Your task to perform on an android device: open app "Reddit" (install if not already installed) Image 0: 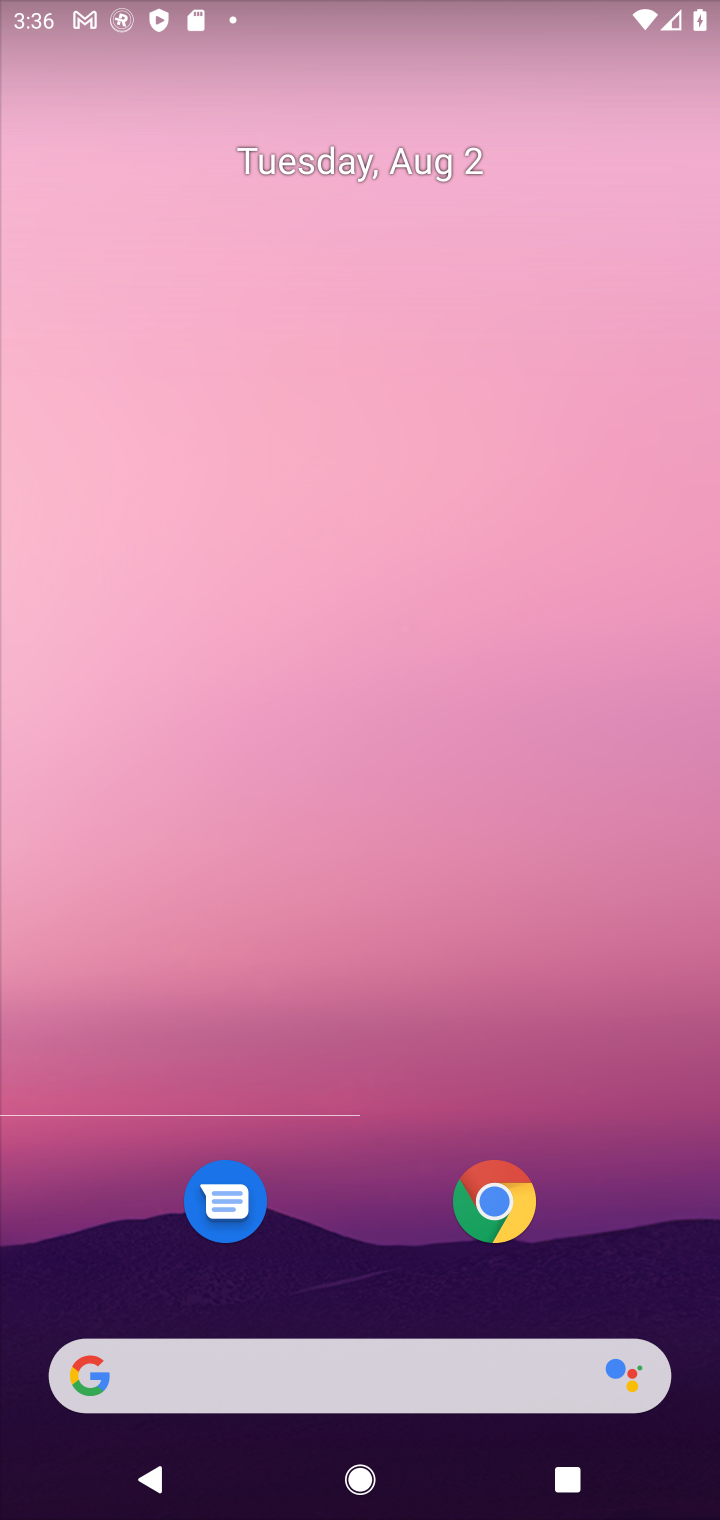
Step 0: press home button
Your task to perform on an android device: open app "Reddit" (install if not already installed) Image 1: 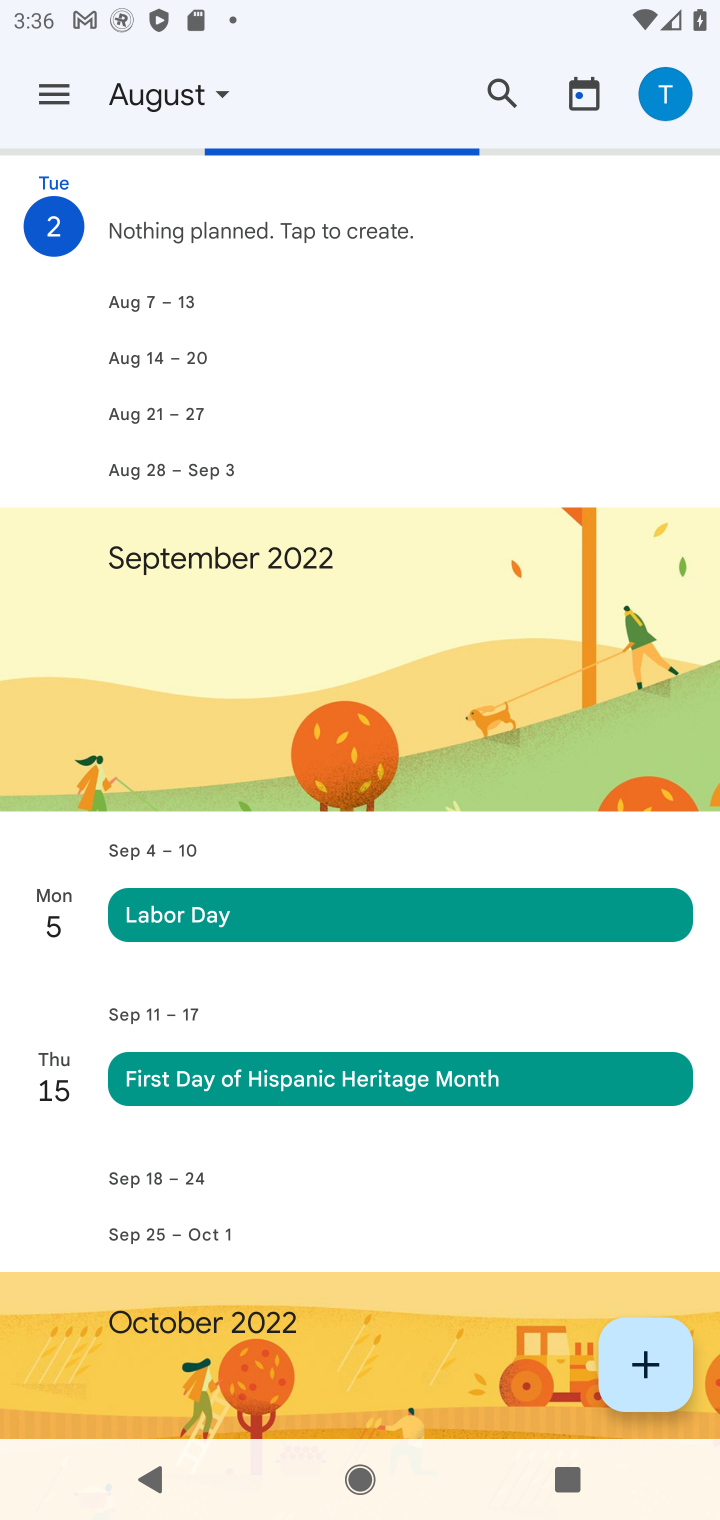
Step 1: click (332, 325)
Your task to perform on an android device: open app "Reddit" (install if not already installed) Image 2: 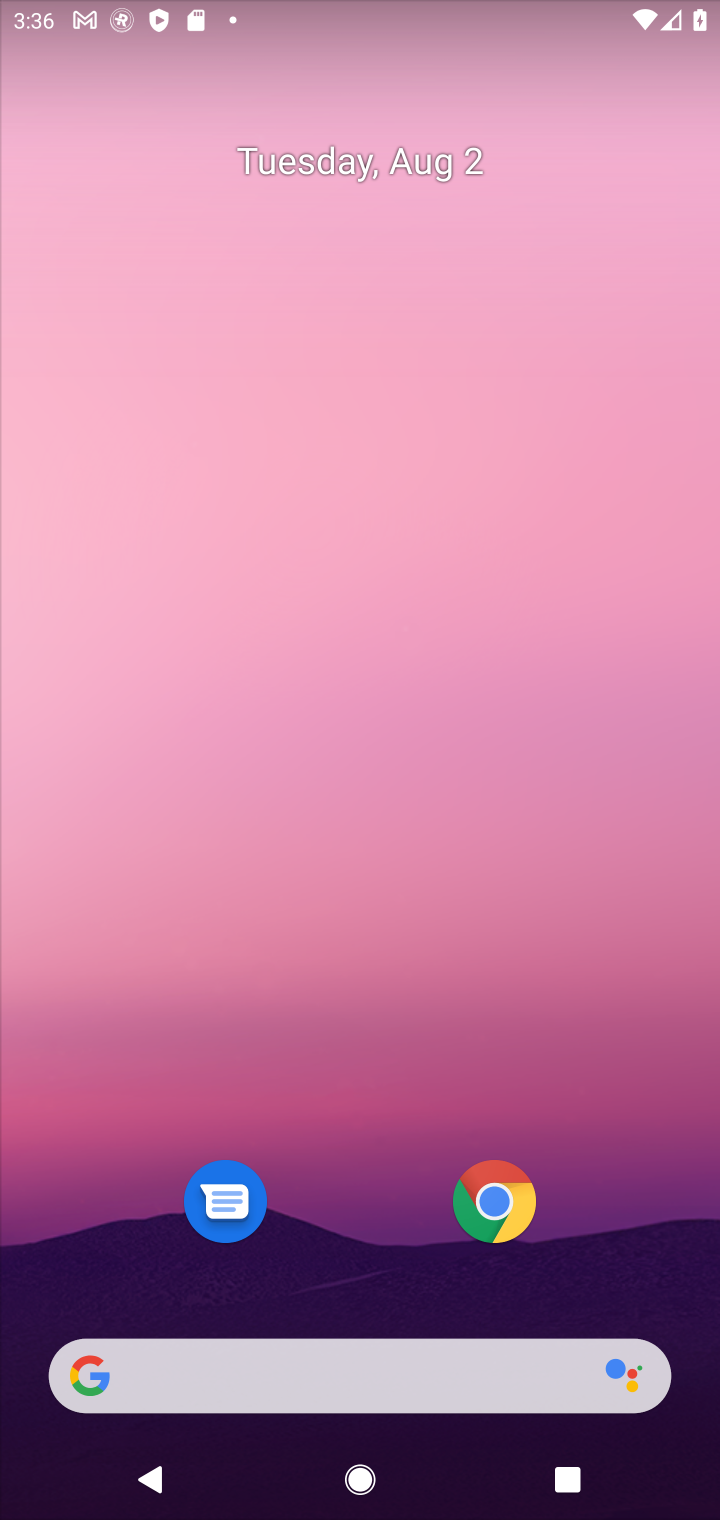
Step 2: drag from (372, 1290) to (387, 150)
Your task to perform on an android device: open app "Reddit" (install if not already installed) Image 3: 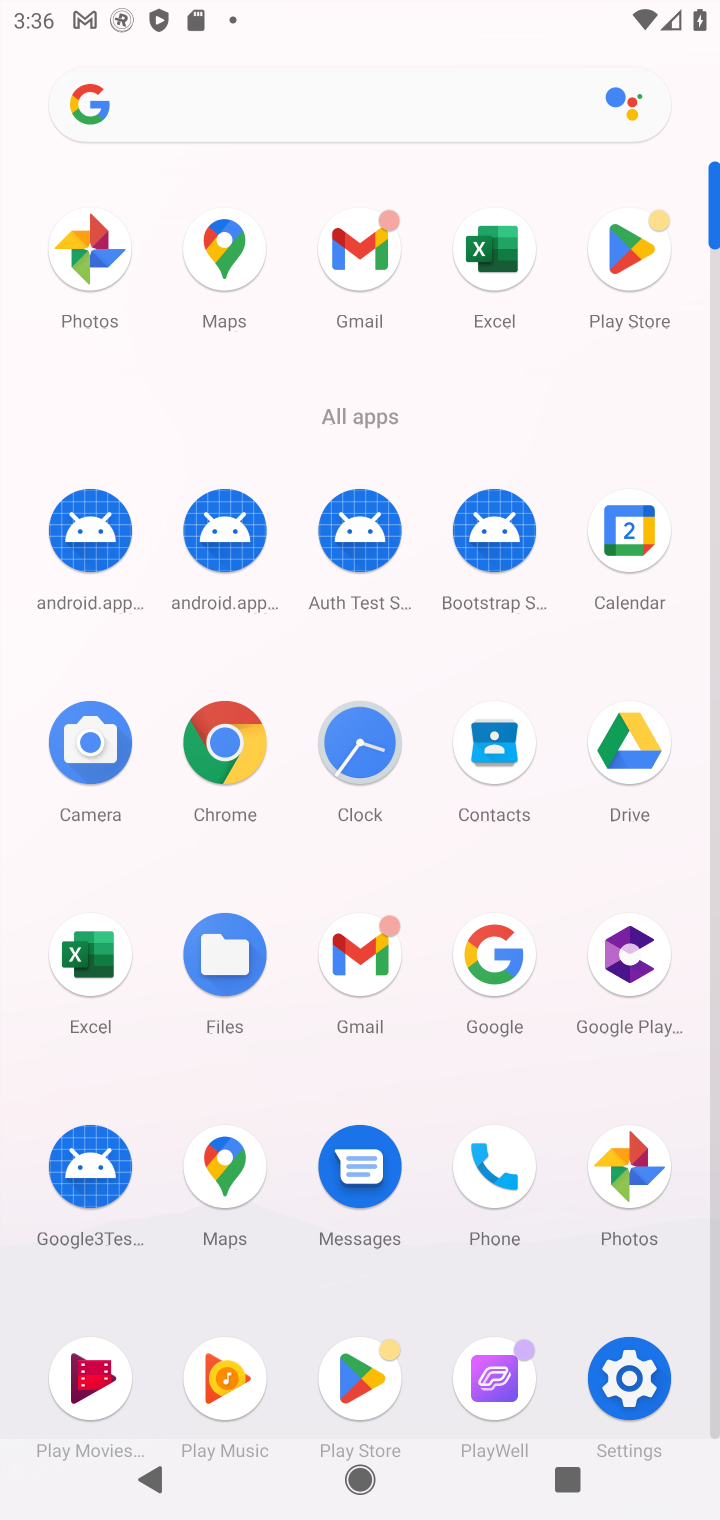
Step 3: click (634, 239)
Your task to perform on an android device: open app "Reddit" (install if not already installed) Image 4: 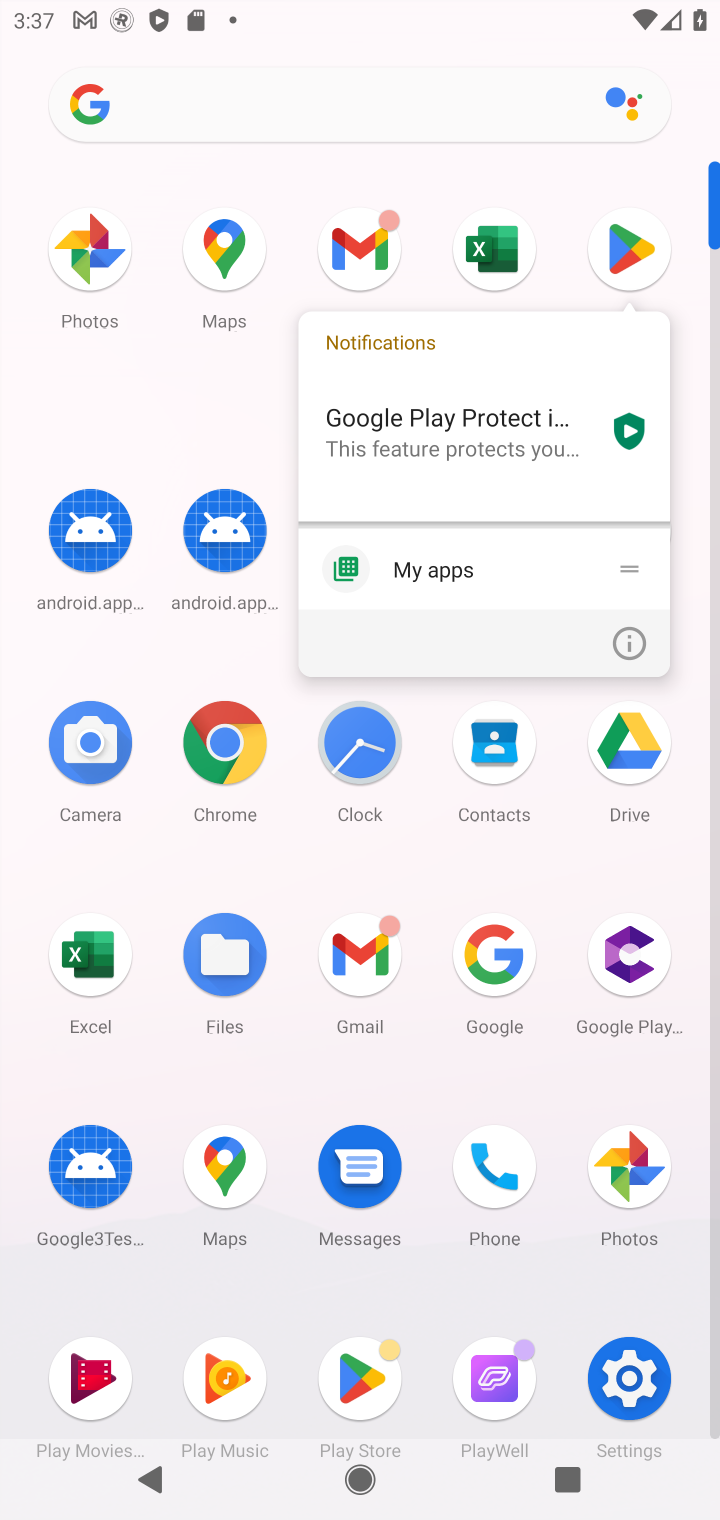
Step 4: click (629, 237)
Your task to perform on an android device: open app "Reddit" (install if not already installed) Image 5: 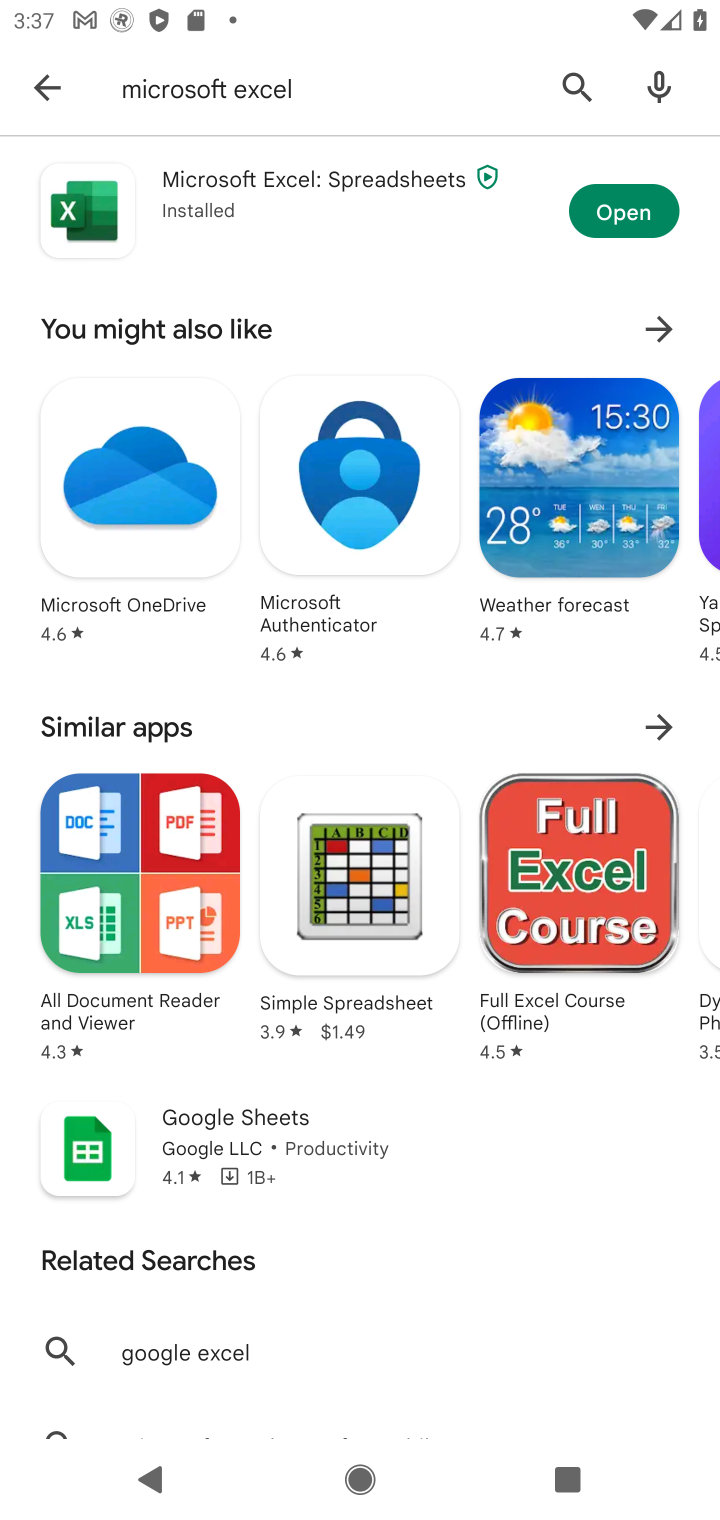
Step 5: click (574, 96)
Your task to perform on an android device: open app "Reddit" (install if not already installed) Image 6: 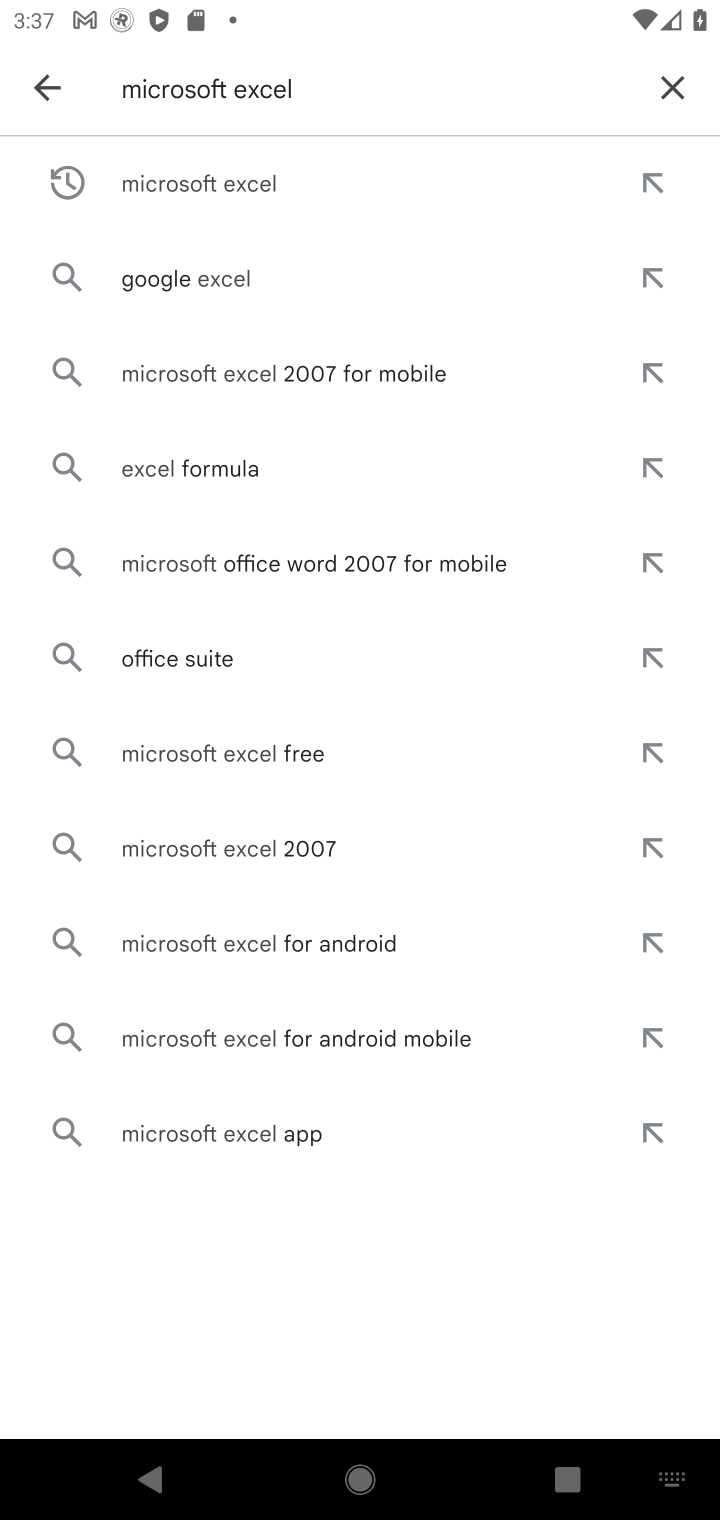
Step 6: click (673, 92)
Your task to perform on an android device: open app "Reddit" (install if not already installed) Image 7: 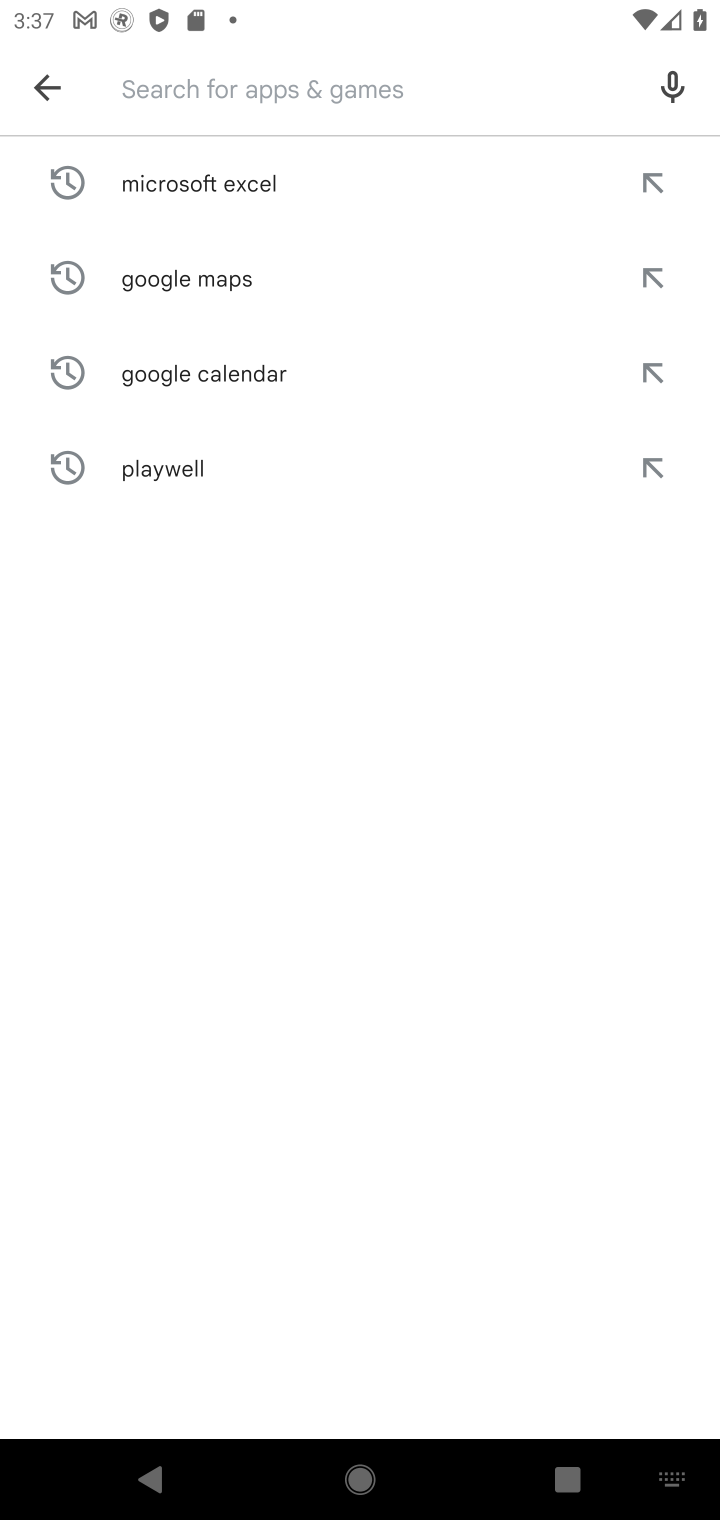
Step 7: type "Reddit"
Your task to perform on an android device: open app "Reddit" (install if not already installed) Image 8: 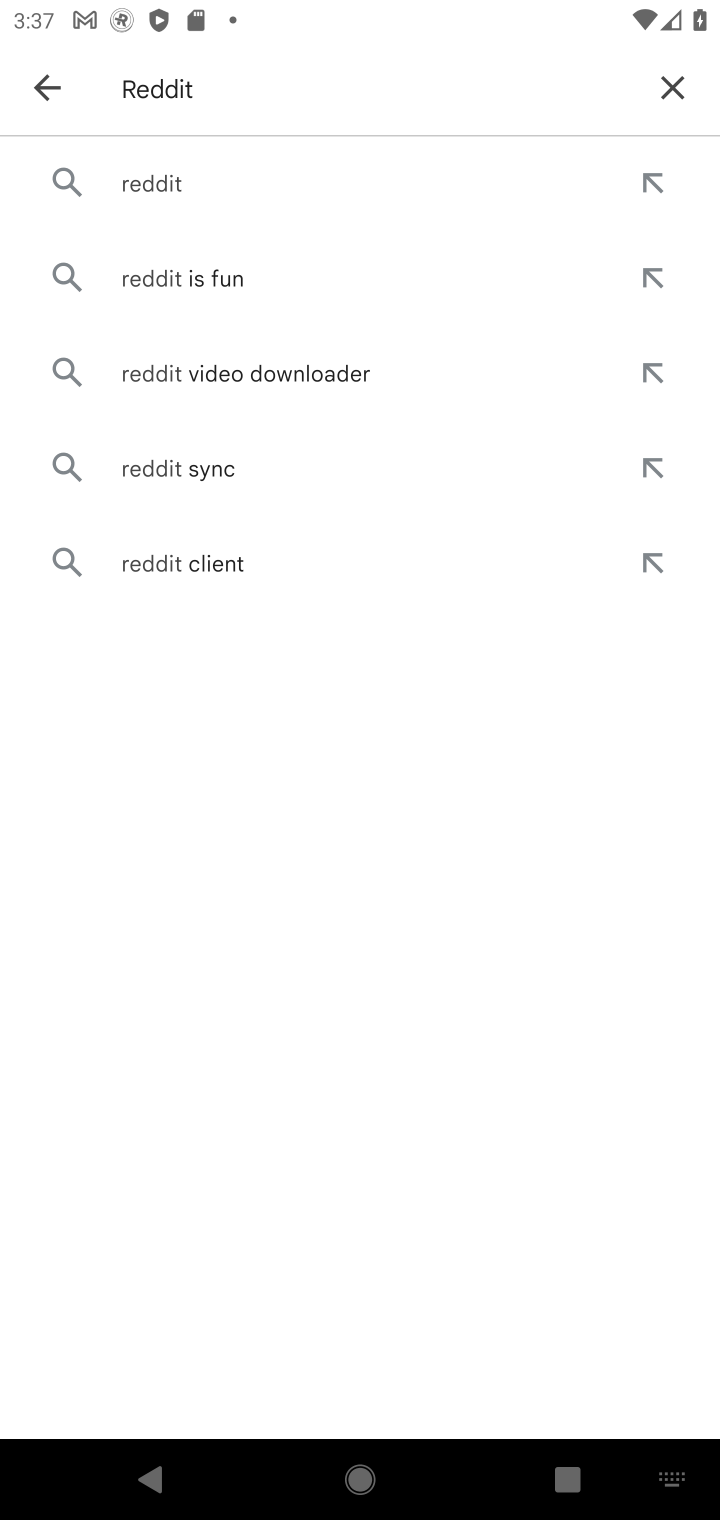
Step 8: click (211, 185)
Your task to perform on an android device: open app "Reddit" (install if not already installed) Image 9: 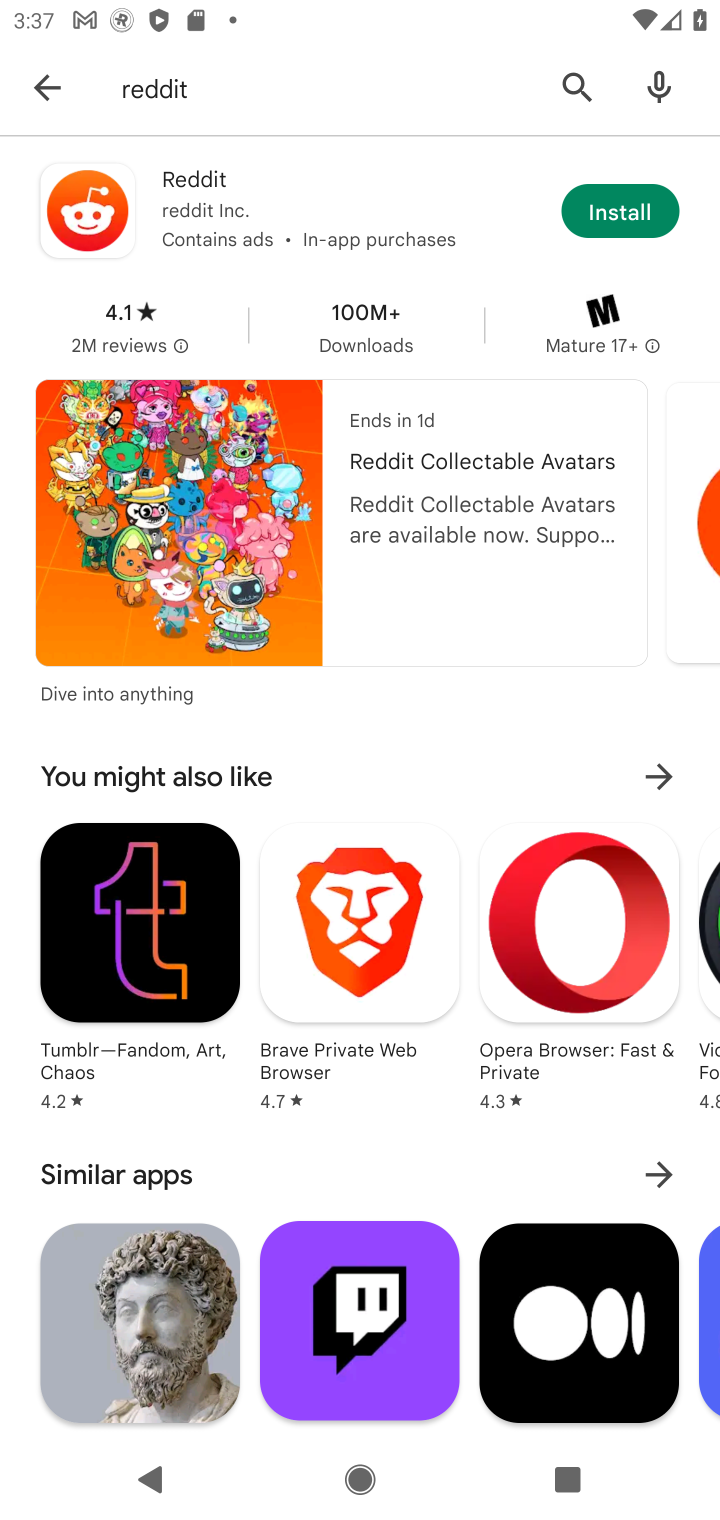
Step 9: click (642, 213)
Your task to perform on an android device: open app "Reddit" (install if not already installed) Image 10: 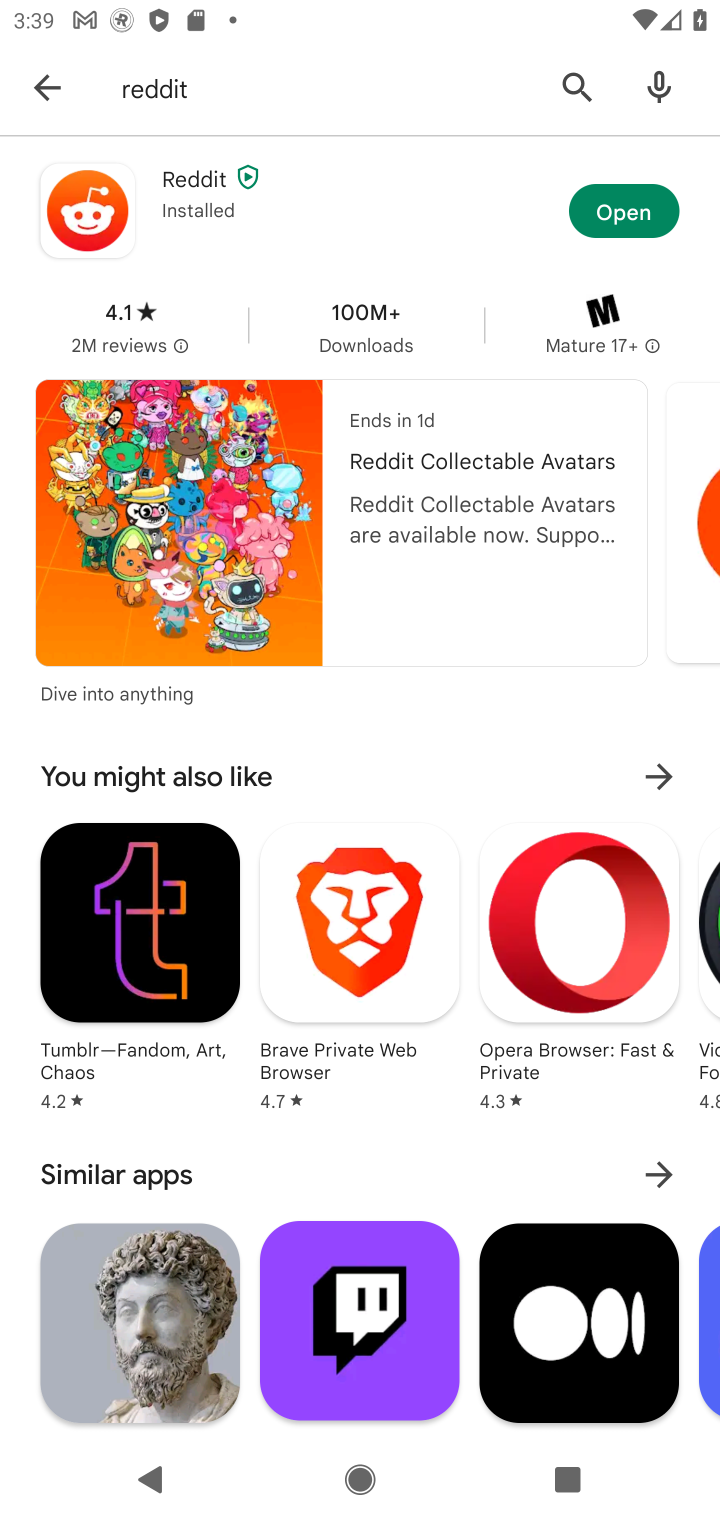
Step 10: click (622, 213)
Your task to perform on an android device: open app "Reddit" (install if not already installed) Image 11: 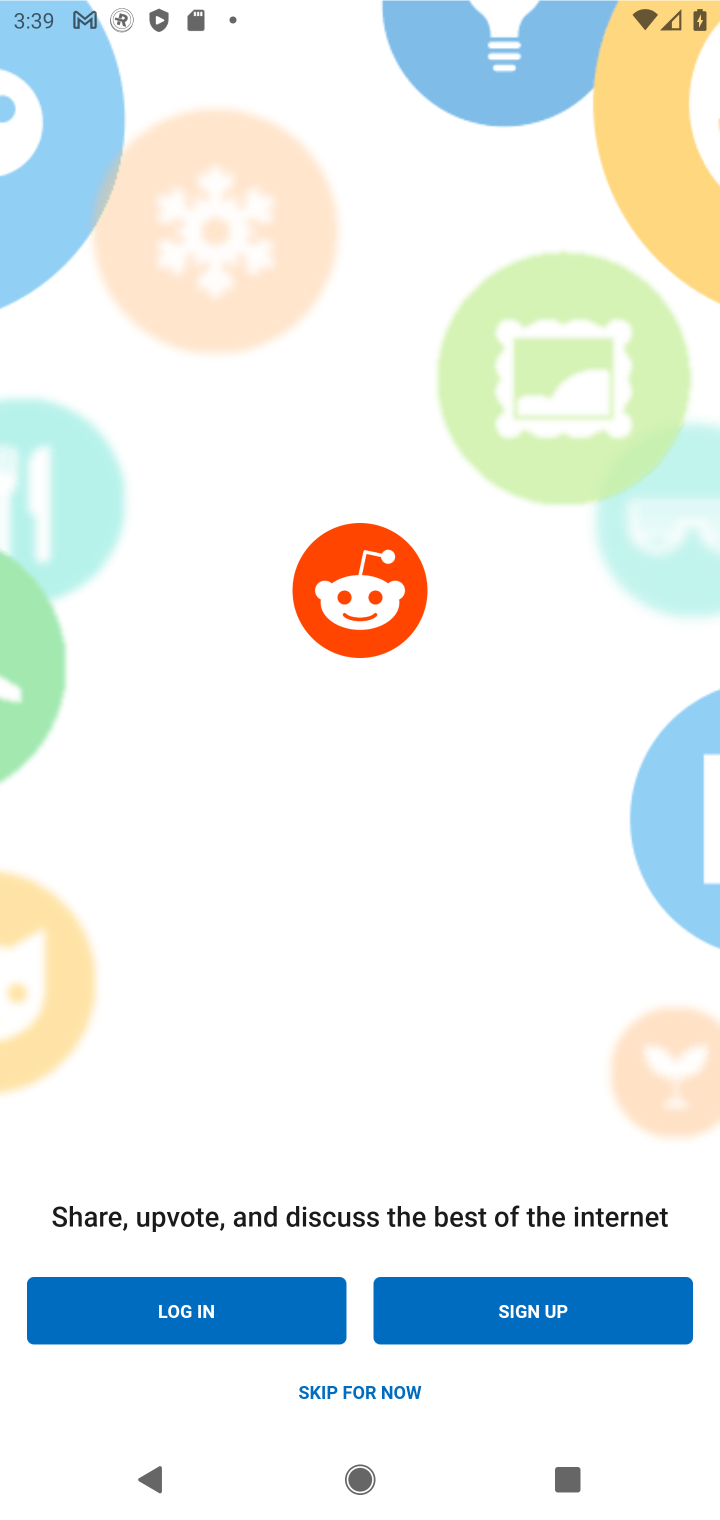
Step 11: click (390, 1385)
Your task to perform on an android device: open app "Reddit" (install if not already installed) Image 12: 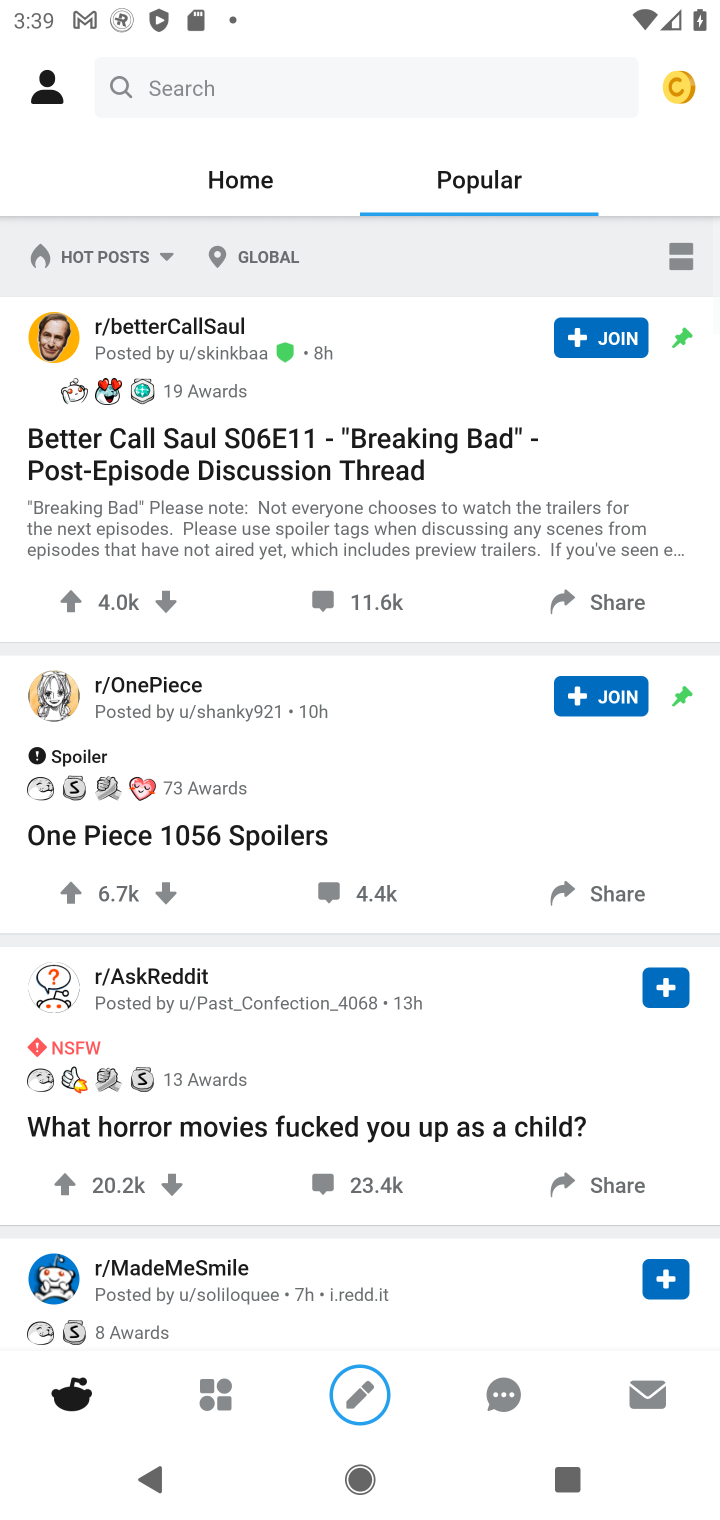
Step 12: task complete